Your task to perform on an android device: star an email in the gmail app Image 0: 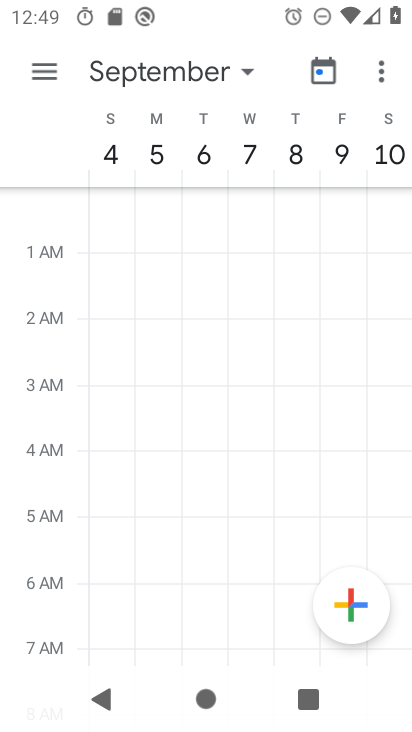
Step 0: press home button
Your task to perform on an android device: star an email in the gmail app Image 1: 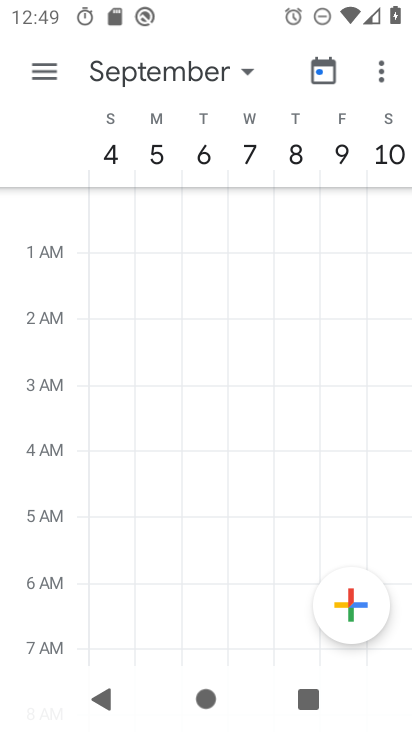
Step 1: press home button
Your task to perform on an android device: star an email in the gmail app Image 2: 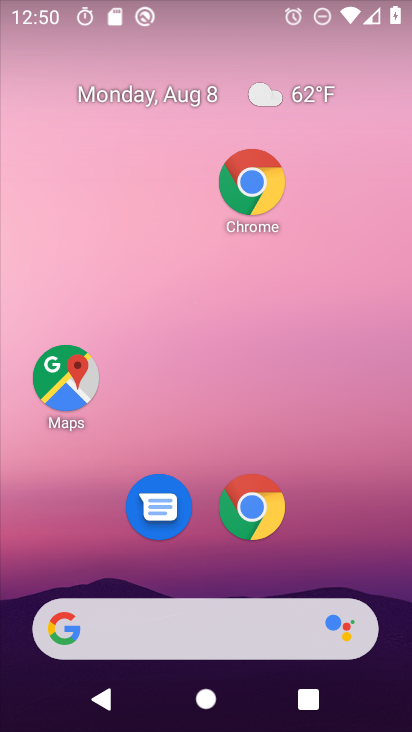
Step 2: drag from (356, 547) to (397, 3)
Your task to perform on an android device: star an email in the gmail app Image 3: 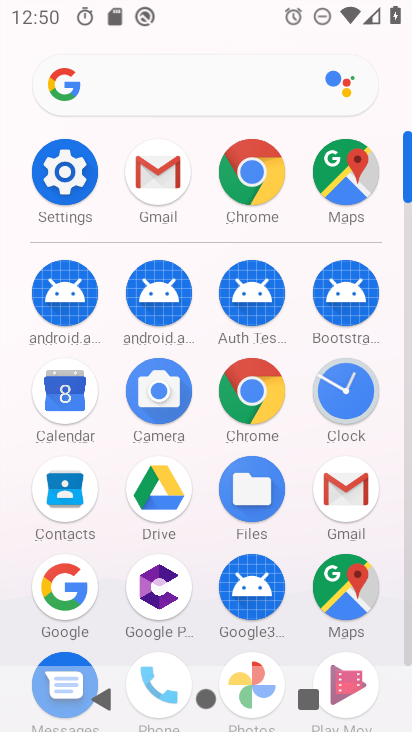
Step 3: click (153, 174)
Your task to perform on an android device: star an email in the gmail app Image 4: 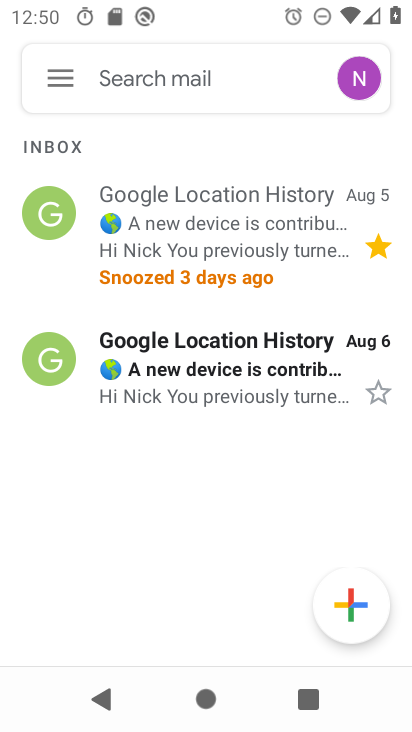
Step 4: click (65, 78)
Your task to perform on an android device: star an email in the gmail app Image 5: 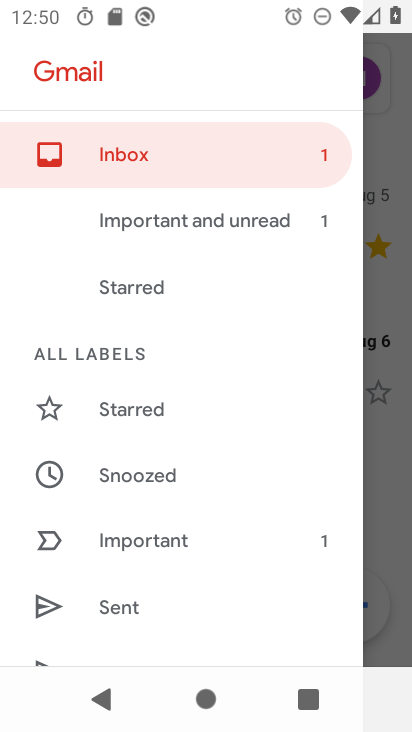
Step 5: click (409, 338)
Your task to perform on an android device: star an email in the gmail app Image 6: 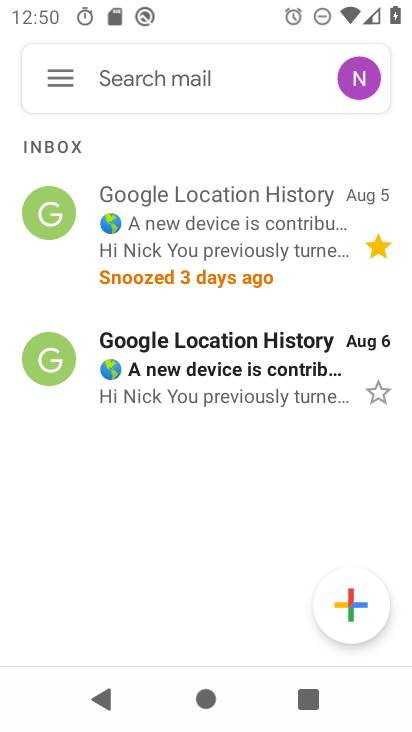
Step 6: click (381, 388)
Your task to perform on an android device: star an email in the gmail app Image 7: 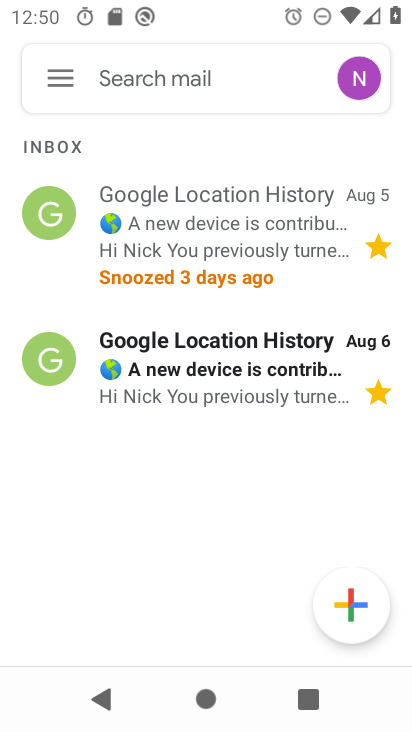
Step 7: task complete